Your task to perform on an android device: turn off wifi Image 0: 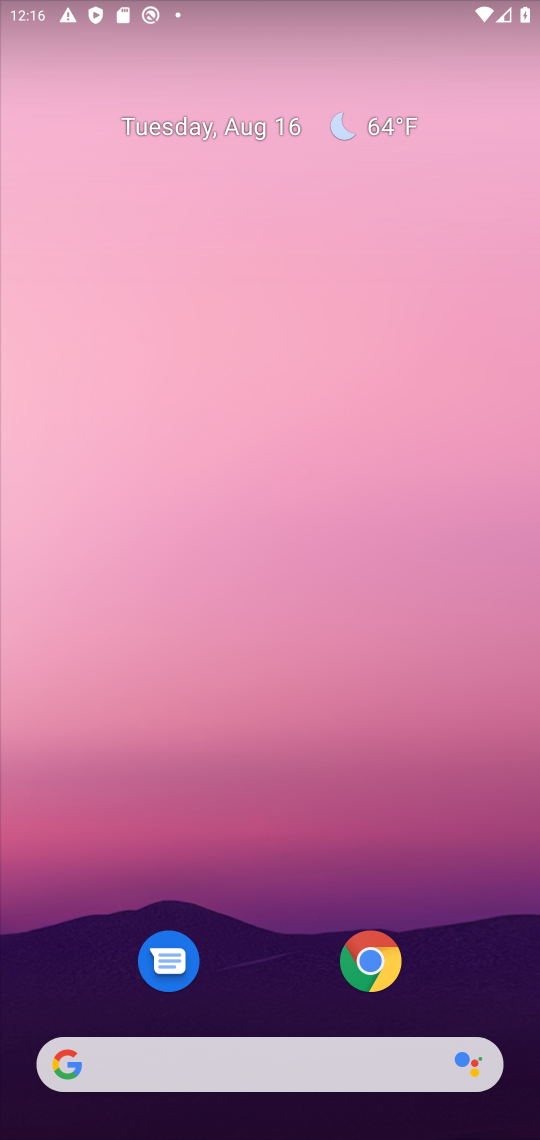
Step 0: drag from (390, 6) to (308, 659)
Your task to perform on an android device: turn off wifi Image 1: 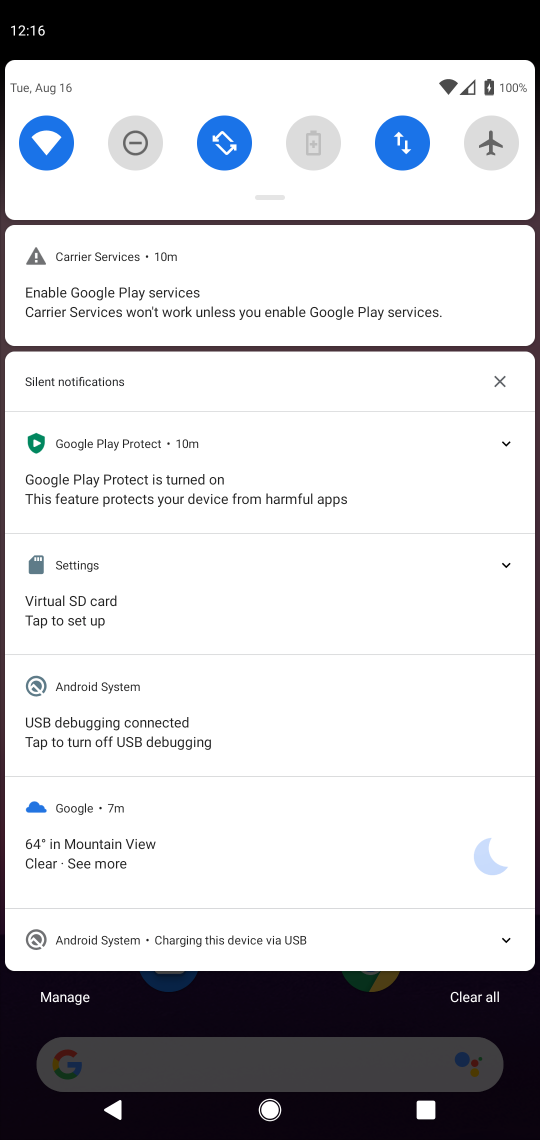
Step 1: click (22, 126)
Your task to perform on an android device: turn off wifi Image 2: 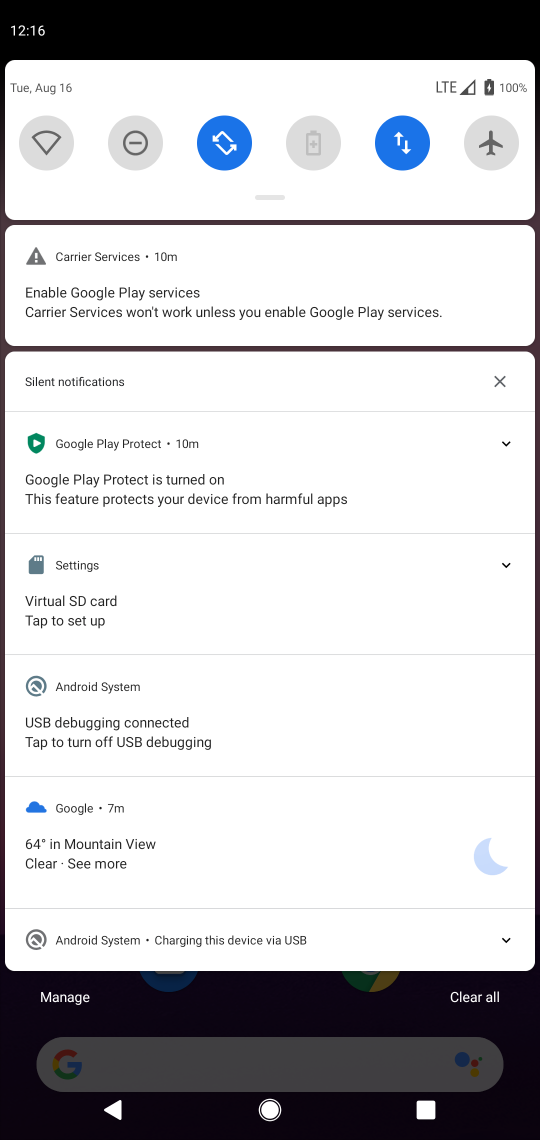
Step 2: task complete